Your task to perform on an android device: Open Google Chrome and click the shortcut for Amazon.com Image 0: 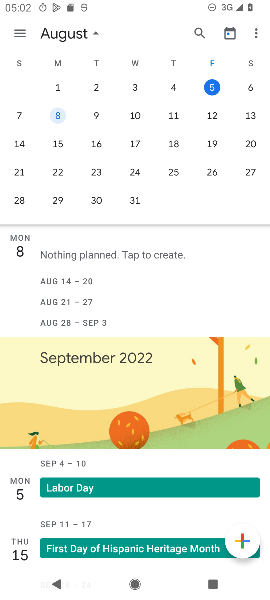
Step 0: press home button
Your task to perform on an android device: Open Google Chrome and click the shortcut for Amazon.com Image 1: 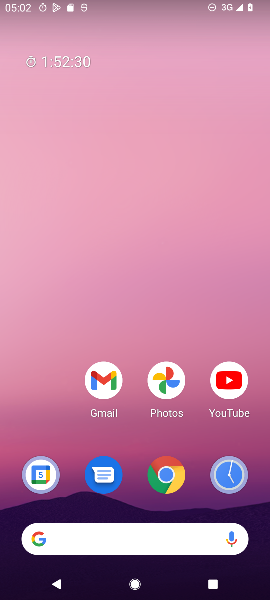
Step 1: drag from (47, 423) to (61, 236)
Your task to perform on an android device: Open Google Chrome and click the shortcut for Amazon.com Image 2: 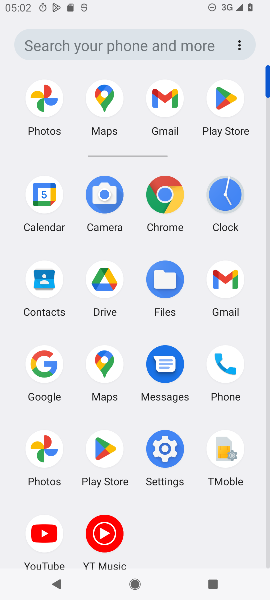
Step 2: click (170, 199)
Your task to perform on an android device: Open Google Chrome and click the shortcut for Amazon.com Image 3: 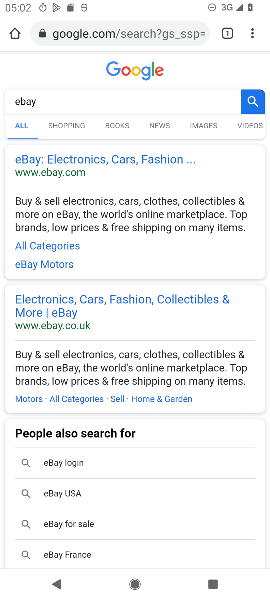
Step 3: press back button
Your task to perform on an android device: Open Google Chrome and click the shortcut for Amazon.com Image 4: 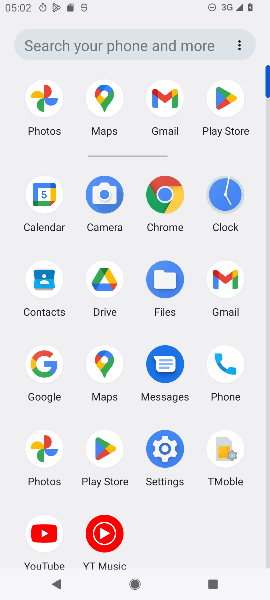
Step 4: click (170, 190)
Your task to perform on an android device: Open Google Chrome and click the shortcut for Amazon.com Image 5: 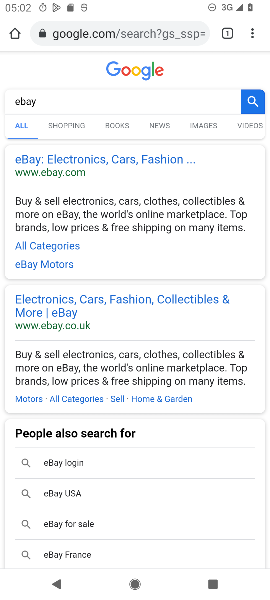
Step 5: task complete